Your task to perform on an android device: What's the weather today? Image 0: 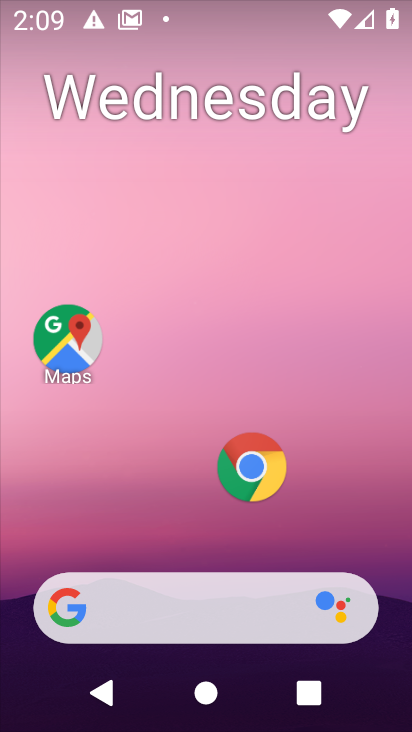
Step 0: click (194, 626)
Your task to perform on an android device: What's the weather today? Image 1: 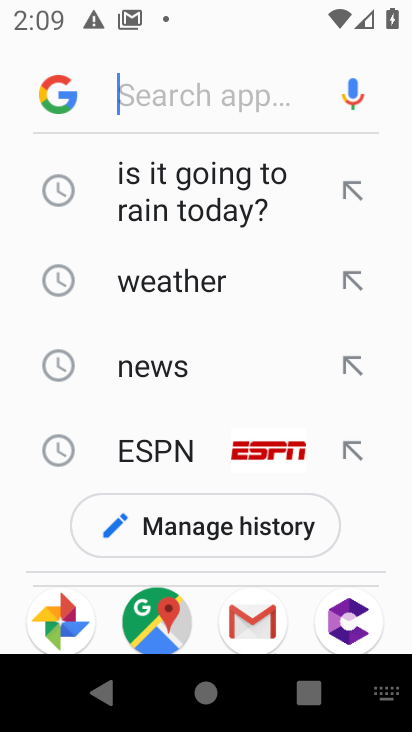
Step 1: type "What's the weather today?"
Your task to perform on an android device: What's the weather today? Image 2: 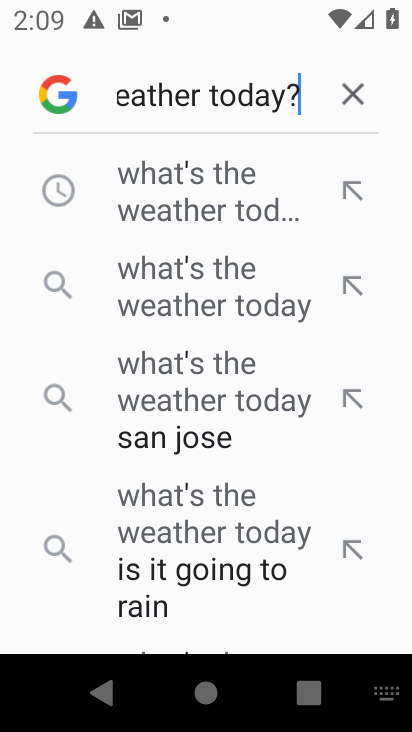
Step 2: type ""
Your task to perform on an android device: What's the weather today? Image 3: 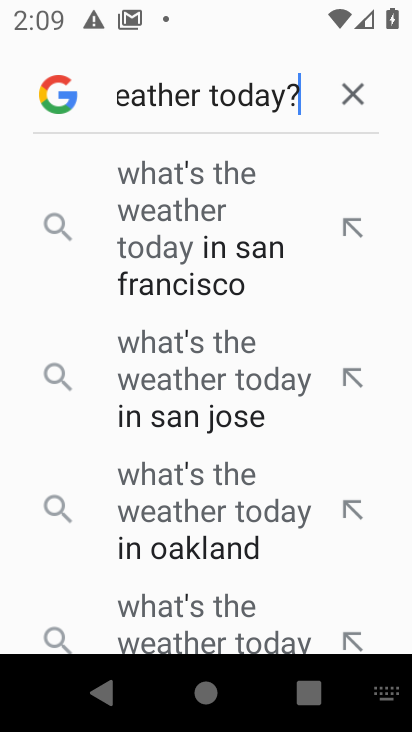
Step 3: press enter
Your task to perform on an android device: What's the weather today? Image 4: 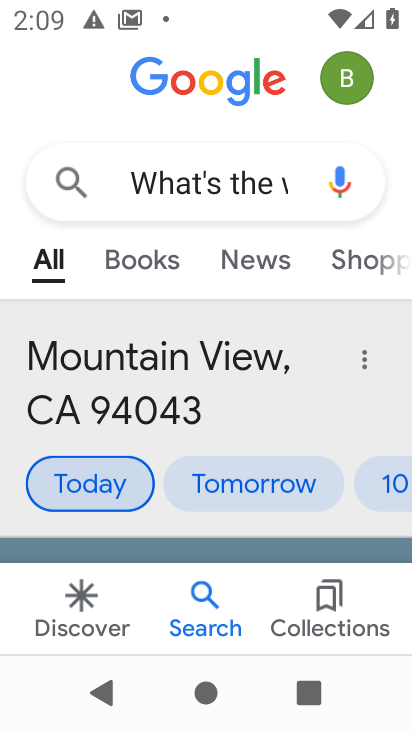
Step 4: task complete